Your task to perform on an android device: Go to calendar. Show me events next week Image 0: 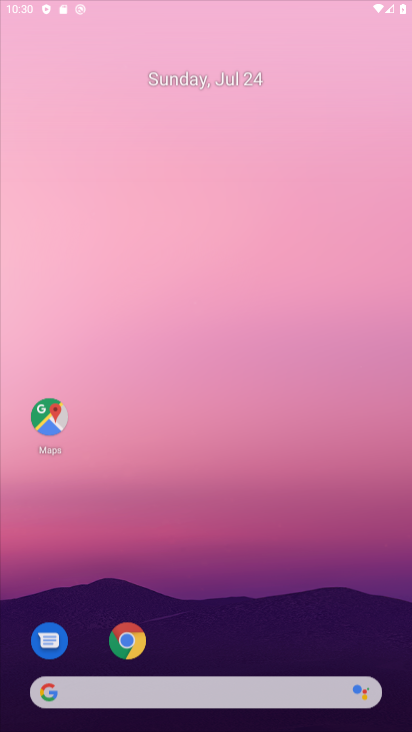
Step 0: drag from (193, 615) to (192, 217)
Your task to perform on an android device: Go to calendar. Show me events next week Image 1: 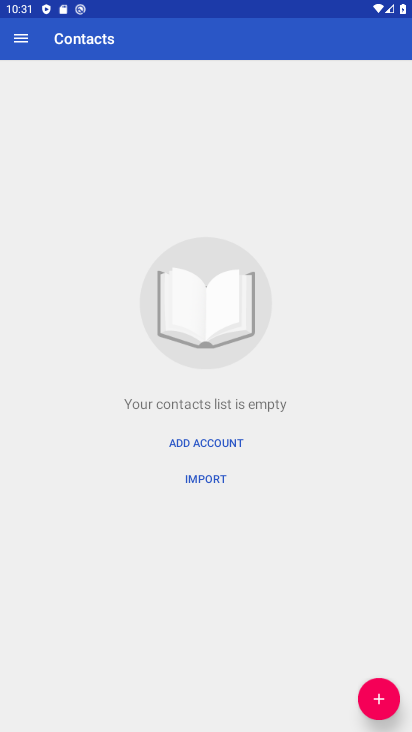
Step 1: press home button
Your task to perform on an android device: Go to calendar. Show me events next week Image 2: 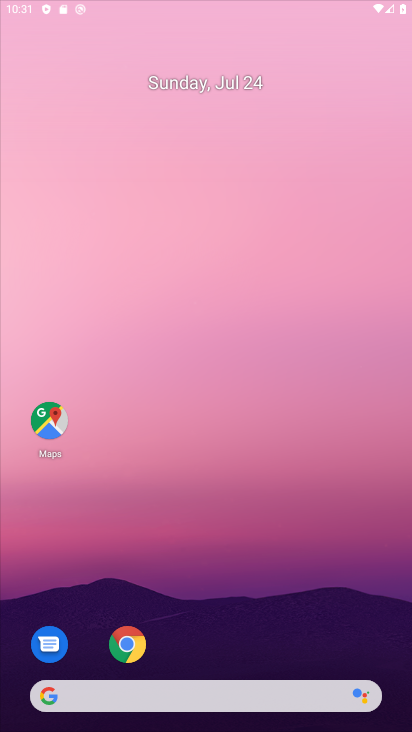
Step 2: drag from (179, 672) to (167, 231)
Your task to perform on an android device: Go to calendar. Show me events next week Image 3: 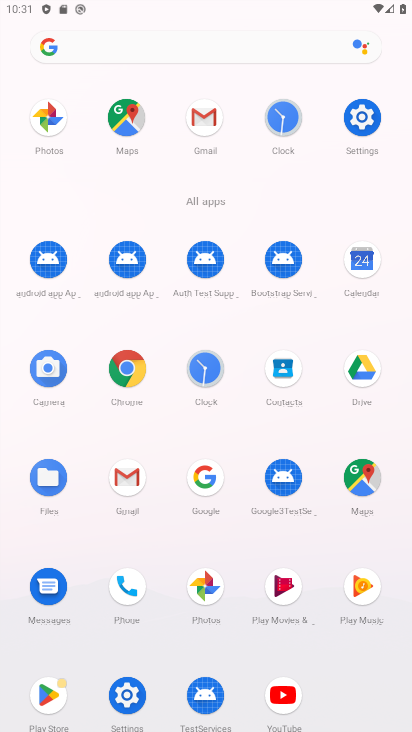
Step 3: click (370, 256)
Your task to perform on an android device: Go to calendar. Show me events next week Image 4: 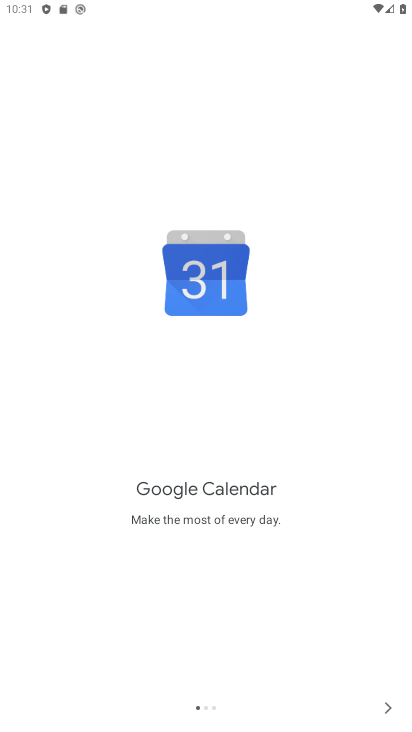
Step 4: click (376, 691)
Your task to perform on an android device: Go to calendar. Show me events next week Image 5: 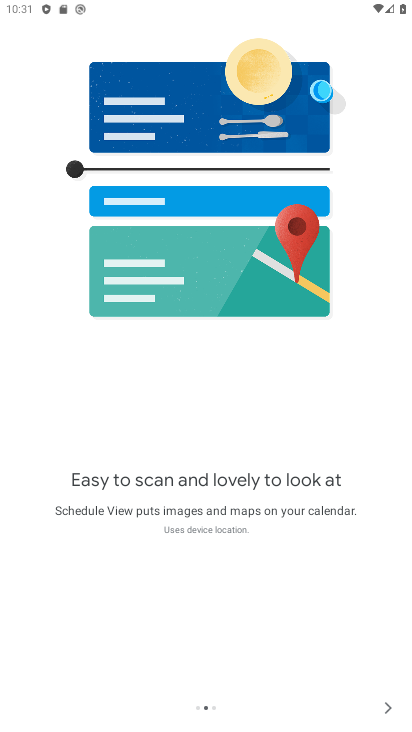
Step 5: click (379, 708)
Your task to perform on an android device: Go to calendar. Show me events next week Image 6: 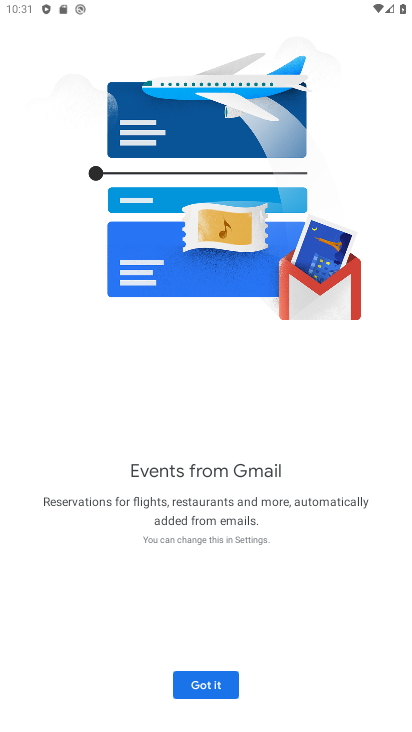
Step 6: click (195, 688)
Your task to perform on an android device: Go to calendar. Show me events next week Image 7: 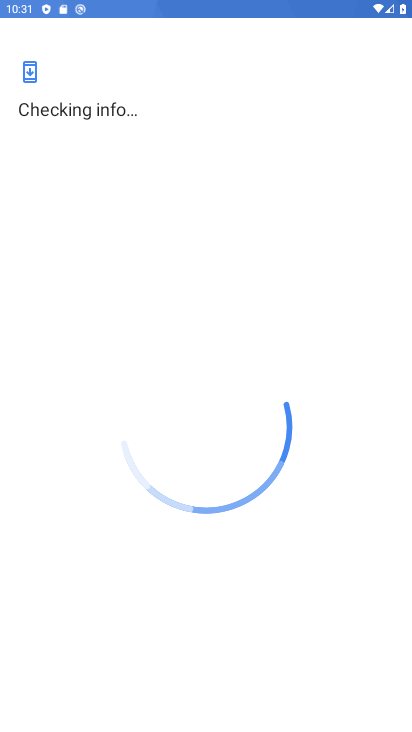
Step 7: task complete